Your task to perform on an android device: Open CNN.com Image 0: 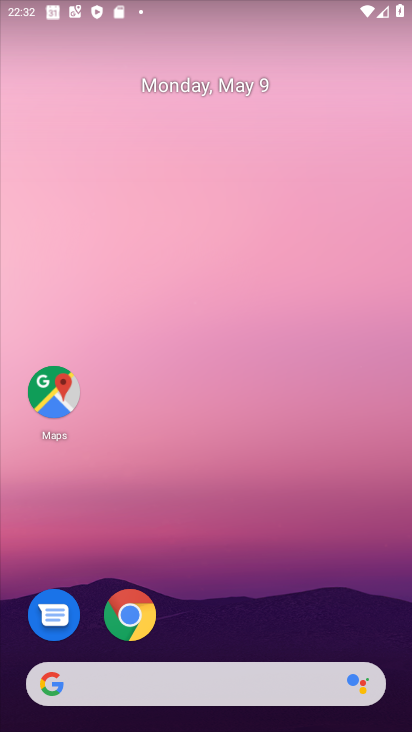
Step 0: click (133, 613)
Your task to perform on an android device: Open CNN.com Image 1: 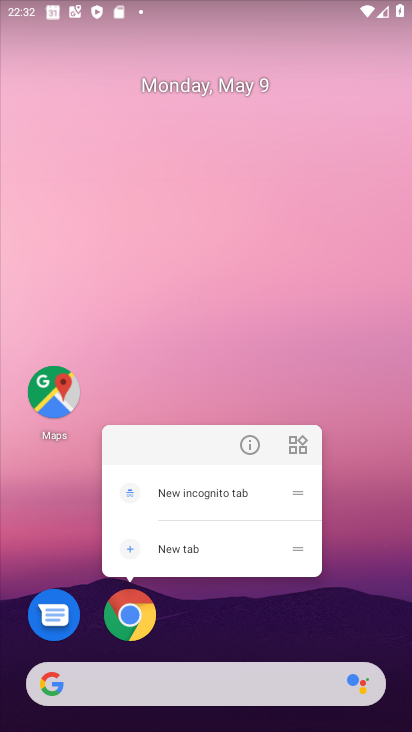
Step 1: click (127, 616)
Your task to perform on an android device: Open CNN.com Image 2: 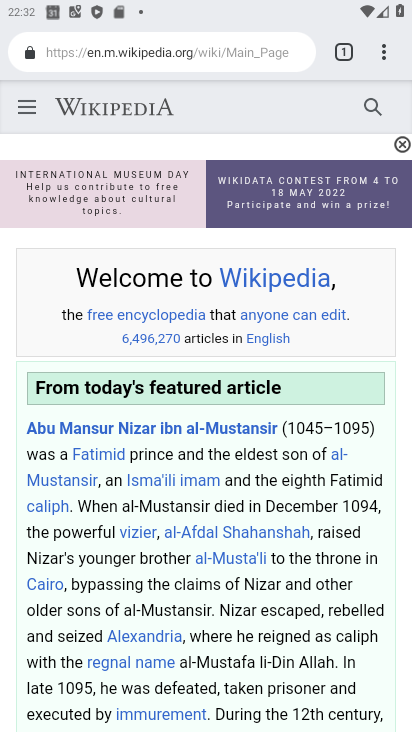
Step 2: click (137, 45)
Your task to perform on an android device: Open CNN.com Image 3: 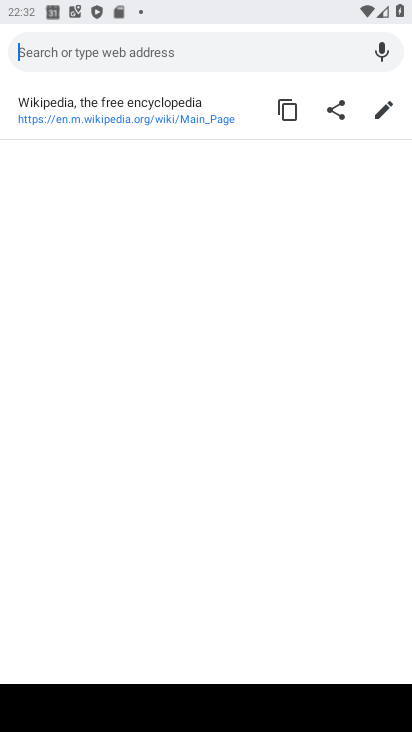
Step 3: type "CNN.com"
Your task to perform on an android device: Open CNN.com Image 4: 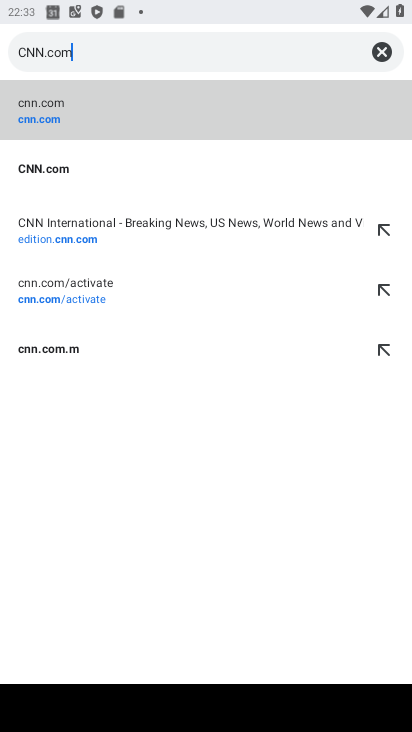
Step 4: click (66, 171)
Your task to perform on an android device: Open CNN.com Image 5: 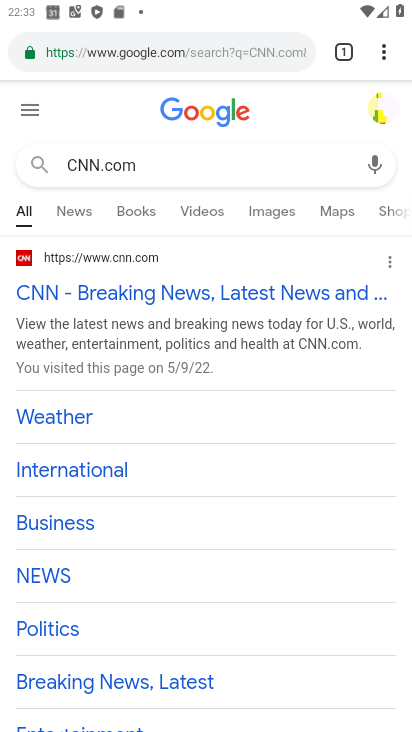
Step 5: task complete